Your task to perform on an android device: check storage Image 0: 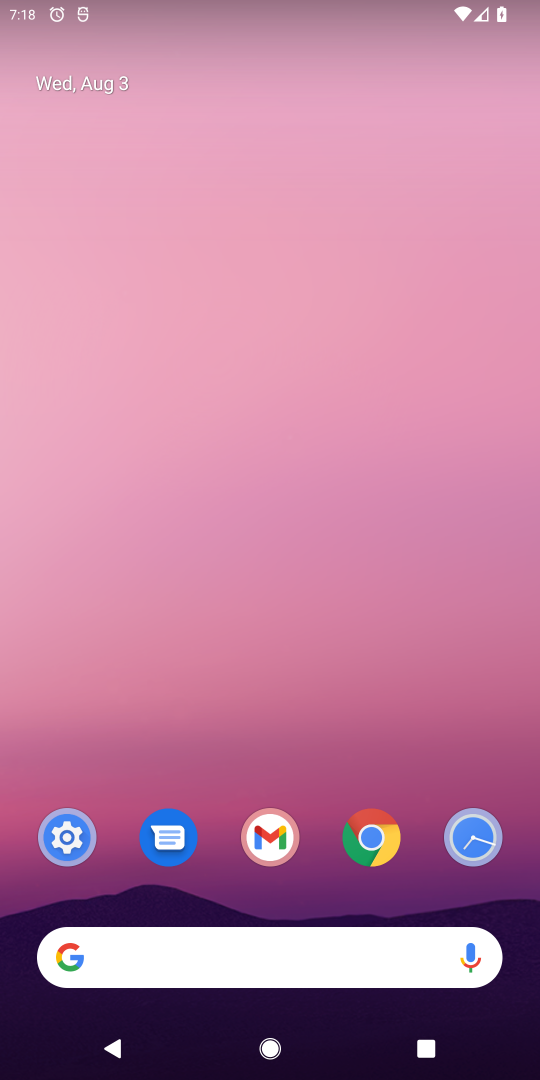
Step 0: press home button
Your task to perform on an android device: check storage Image 1: 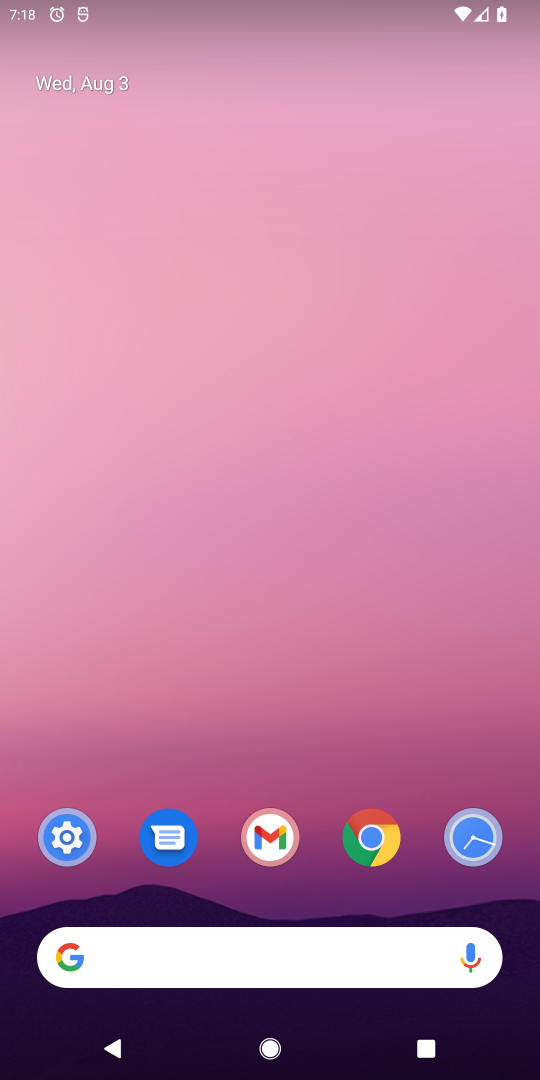
Step 1: drag from (354, 761) to (537, 400)
Your task to perform on an android device: check storage Image 2: 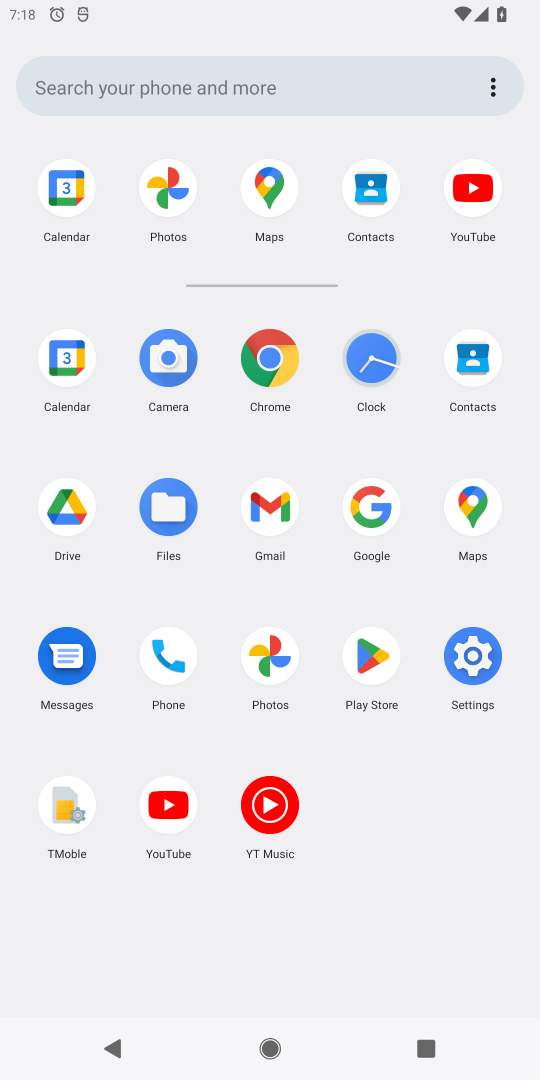
Step 2: click (469, 654)
Your task to perform on an android device: check storage Image 3: 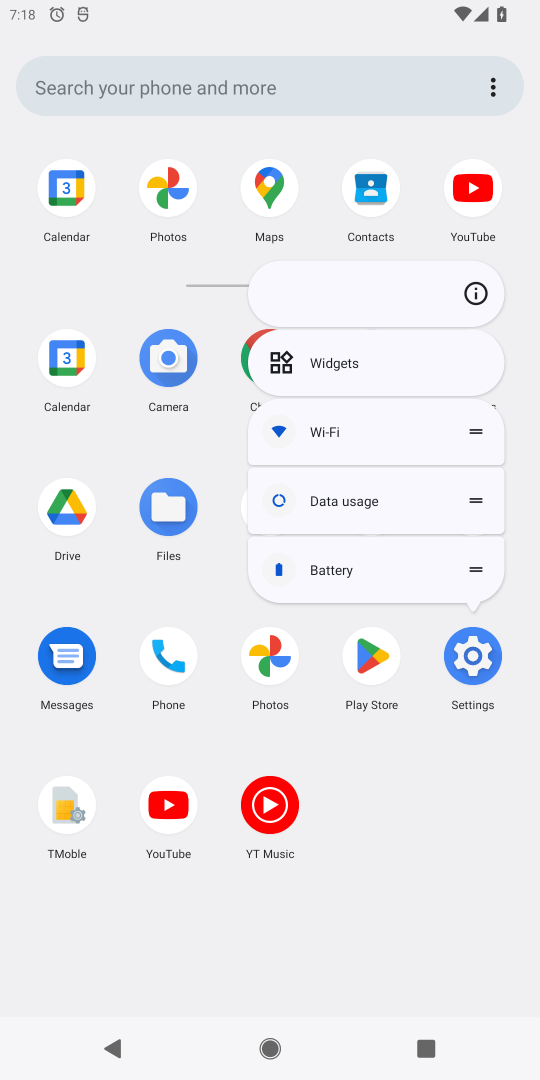
Step 3: click (484, 662)
Your task to perform on an android device: check storage Image 4: 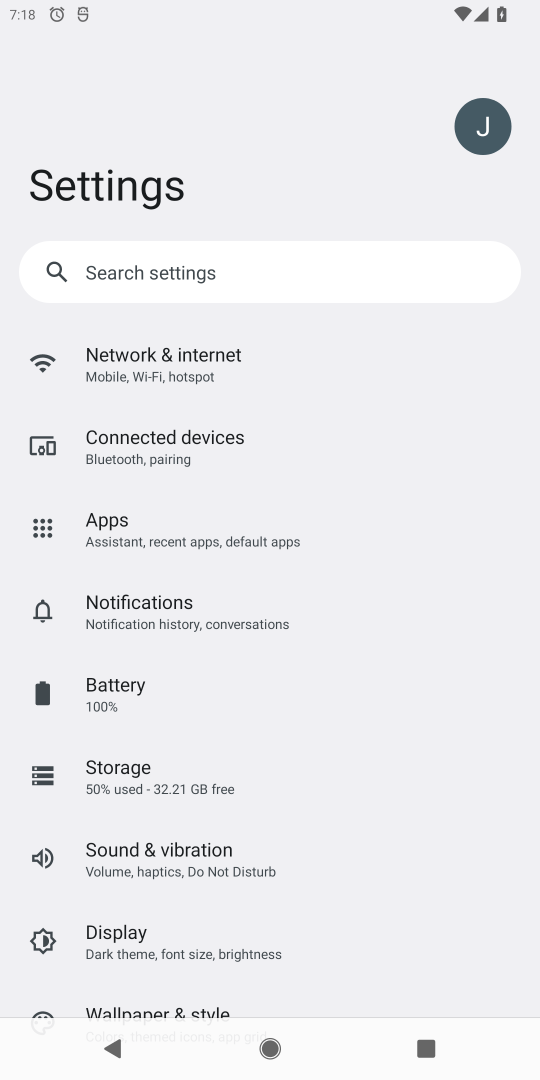
Step 4: click (102, 776)
Your task to perform on an android device: check storage Image 5: 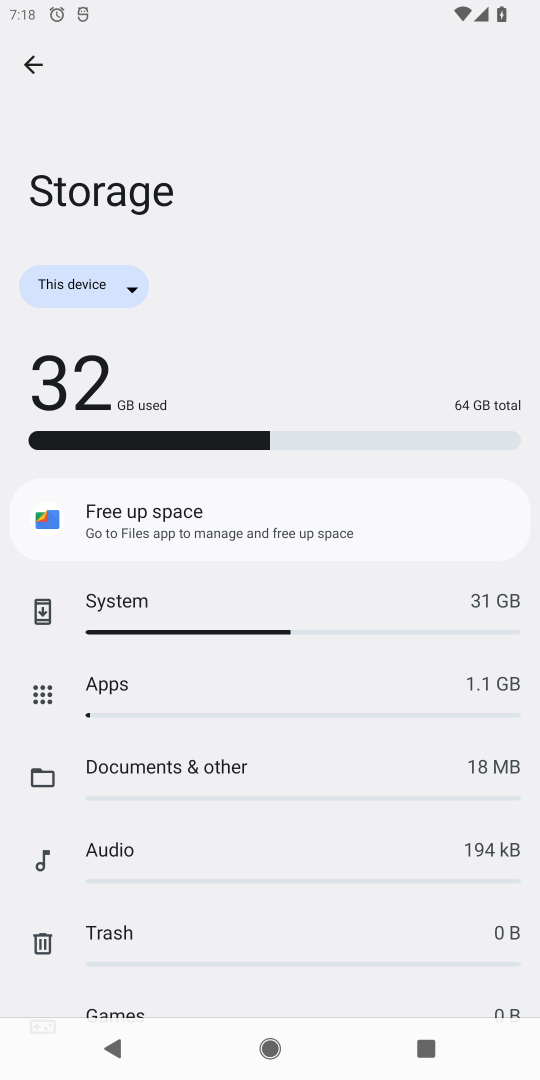
Step 5: task complete